Your task to perform on an android device: Open Chrome and go to settings Image 0: 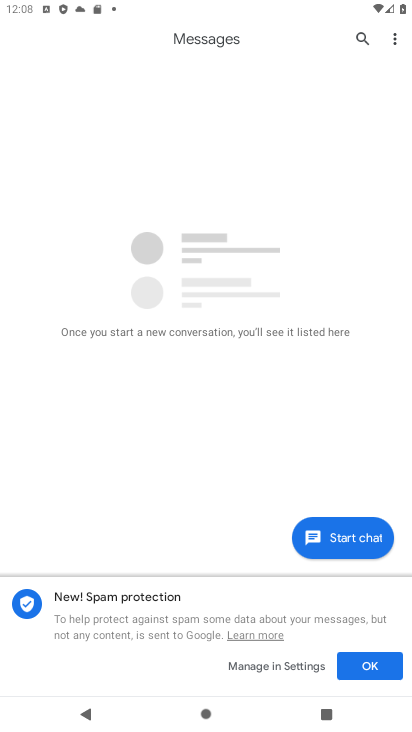
Step 0: press home button
Your task to perform on an android device: Open Chrome and go to settings Image 1: 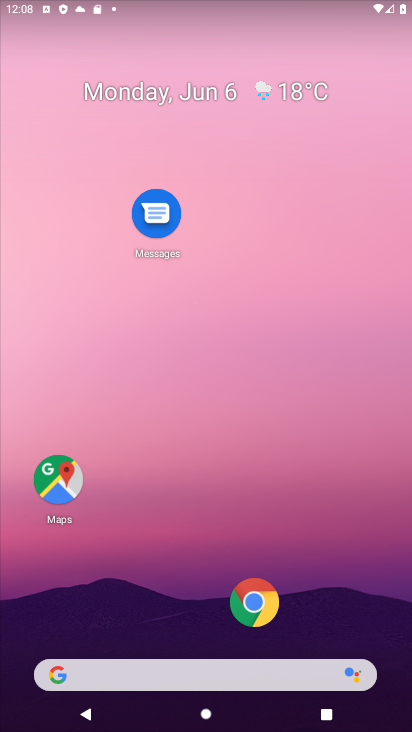
Step 1: click (268, 619)
Your task to perform on an android device: Open Chrome and go to settings Image 2: 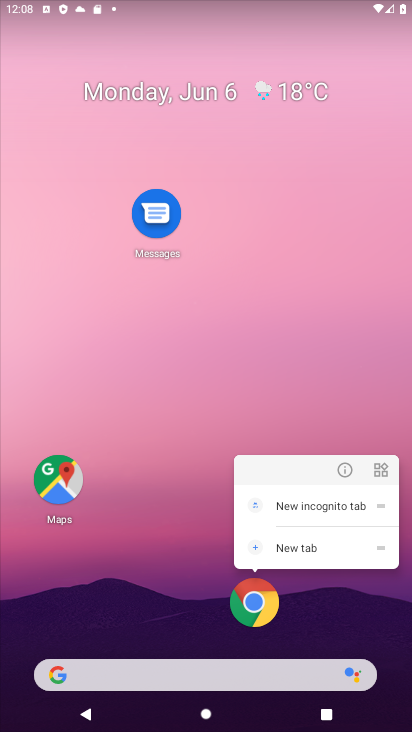
Step 2: click (160, 341)
Your task to perform on an android device: Open Chrome and go to settings Image 3: 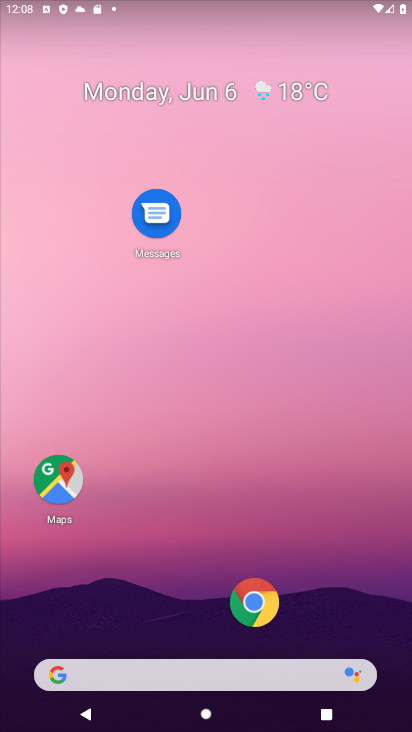
Step 3: click (257, 620)
Your task to perform on an android device: Open Chrome and go to settings Image 4: 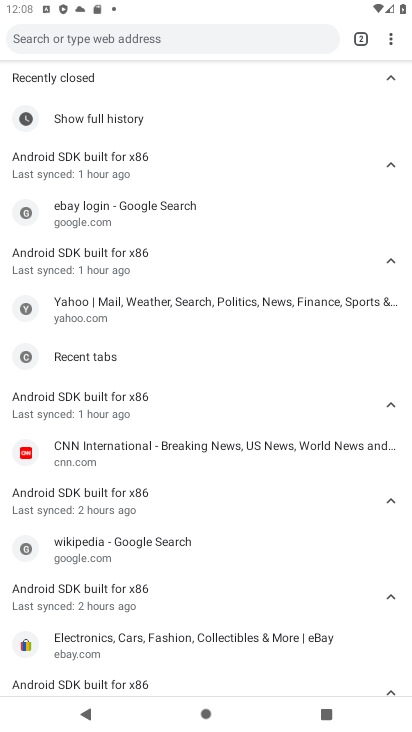
Step 4: click (398, 43)
Your task to perform on an android device: Open Chrome and go to settings Image 5: 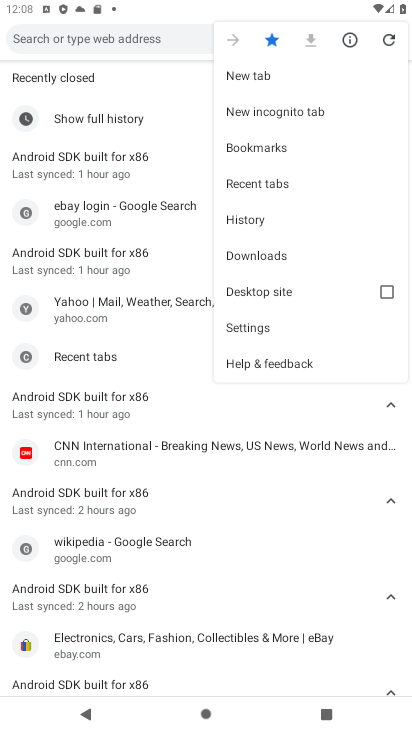
Step 5: click (284, 322)
Your task to perform on an android device: Open Chrome and go to settings Image 6: 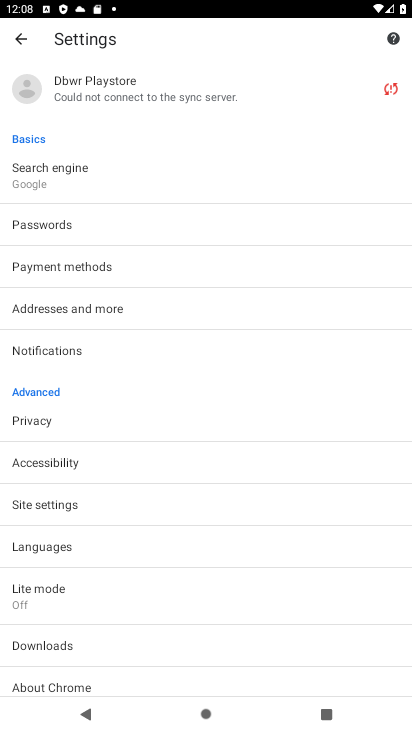
Step 6: task complete